Your task to perform on an android device: install app "Google Chrome" Image 0: 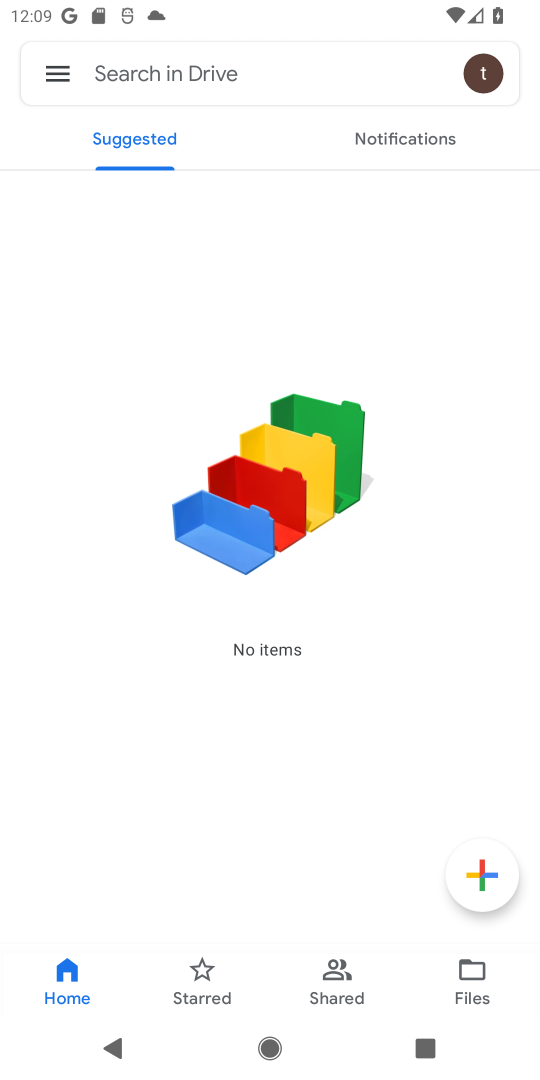
Step 0: press home button
Your task to perform on an android device: install app "Google Chrome" Image 1: 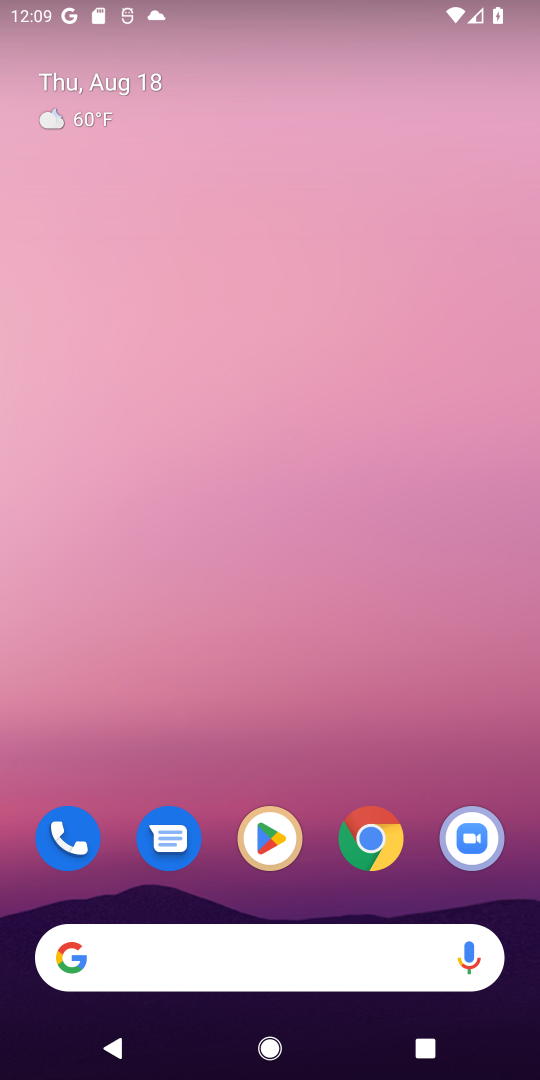
Step 1: click (266, 811)
Your task to perform on an android device: install app "Google Chrome" Image 2: 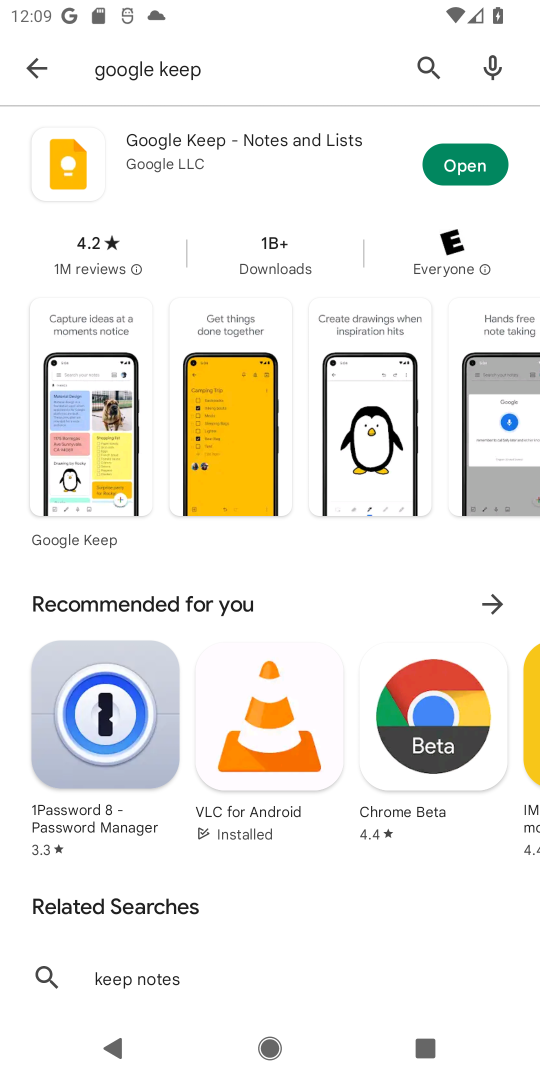
Step 2: click (423, 59)
Your task to perform on an android device: install app "Google Chrome" Image 3: 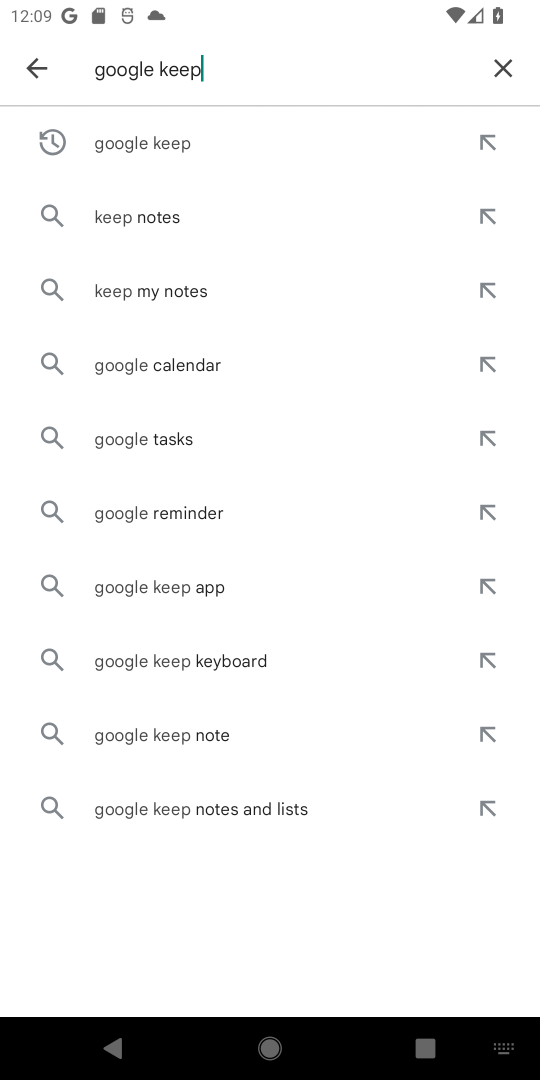
Step 3: click (501, 65)
Your task to perform on an android device: install app "Google Chrome" Image 4: 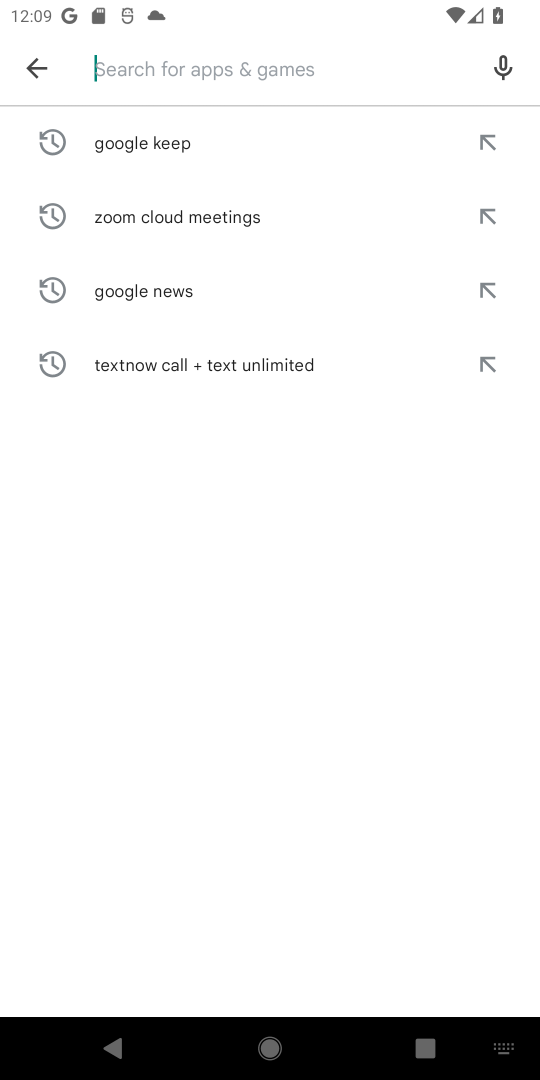
Step 4: type "Google Chrome"
Your task to perform on an android device: install app "Google Chrome" Image 5: 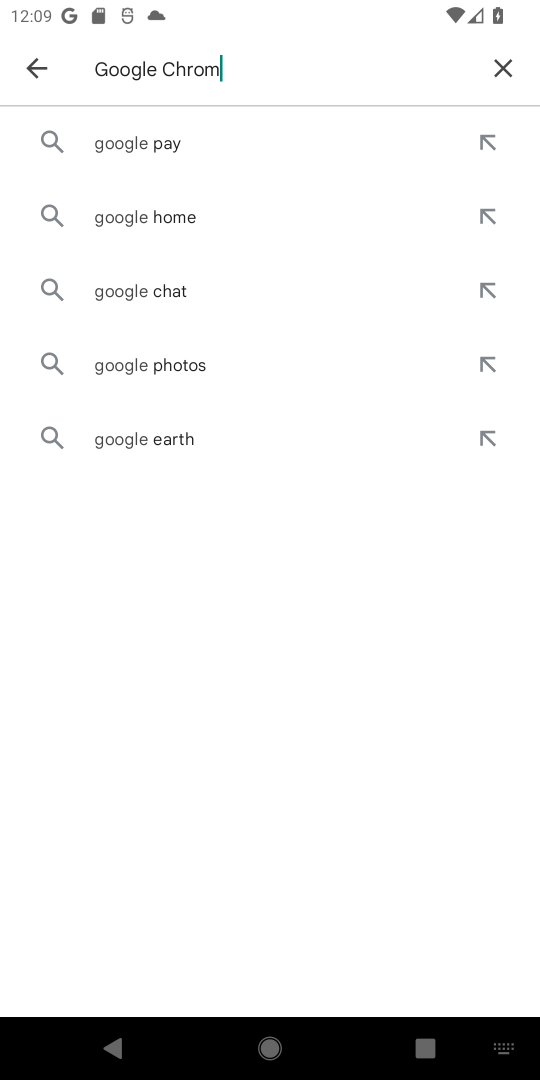
Step 5: type ""
Your task to perform on an android device: install app "Google Chrome" Image 6: 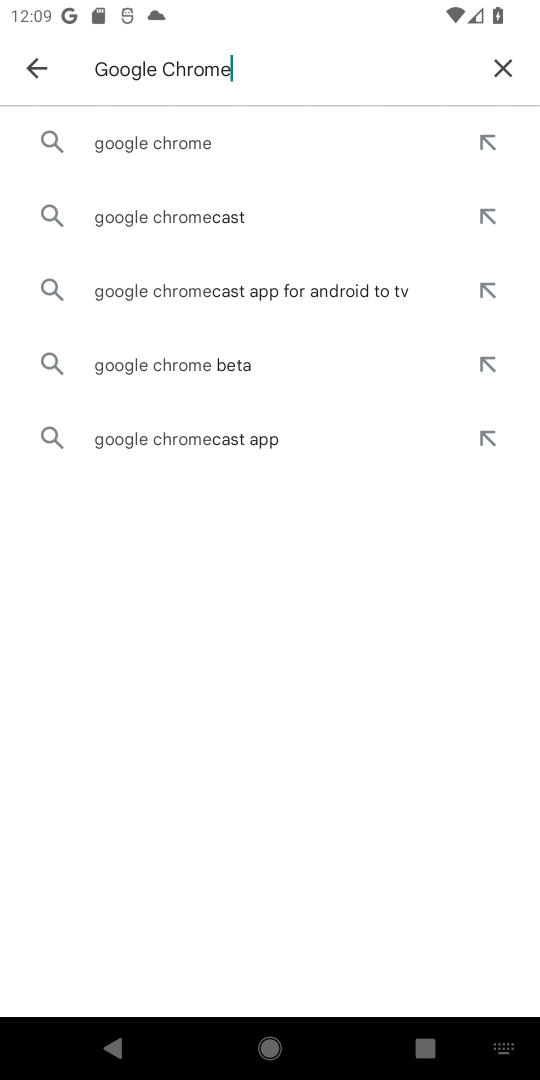
Step 6: click (152, 130)
Your task to perform on an android device: install app "Google Chrome" Image 7: 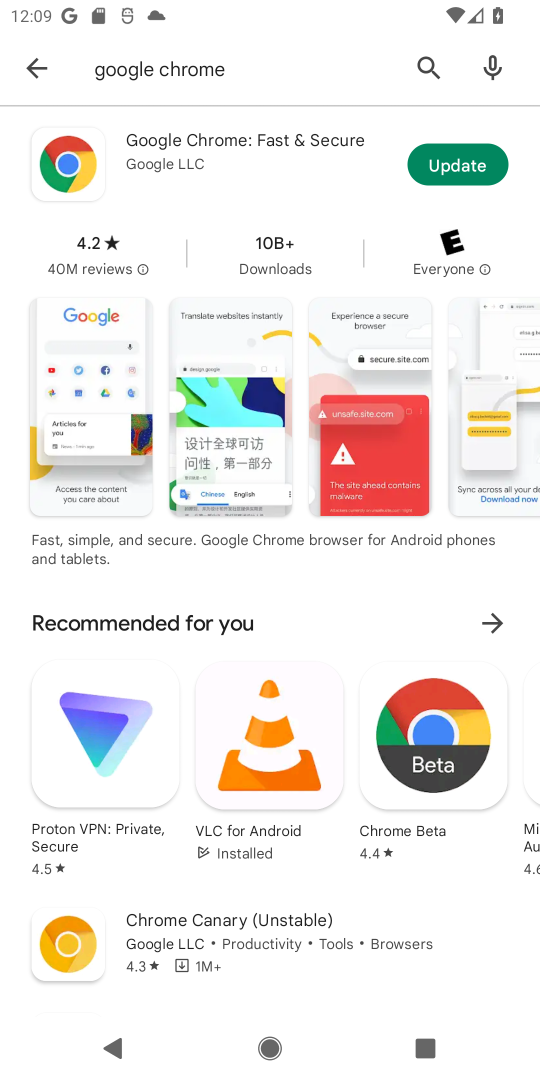
Step 7: task complete